Your task to perform on an android device: move a message to another label in the gmail app Image 0: 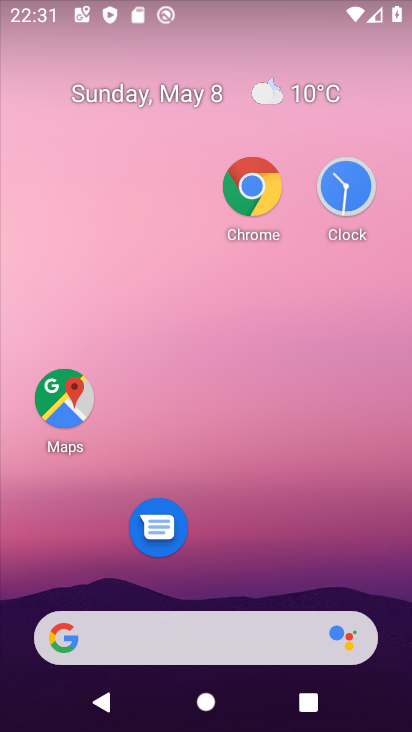
Step 0: drag from (133, 372) to (35, 77)
Your task to perform on an android device: move a message to another label in the gmail app Image 1: 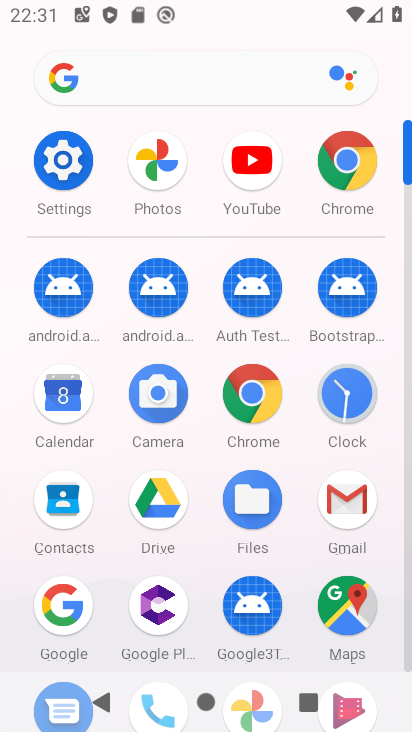
Step 1: drag from (271, 484) to (206, 255)
Your task to perform on an android device: move a message to another label in the gmail app Image 2: 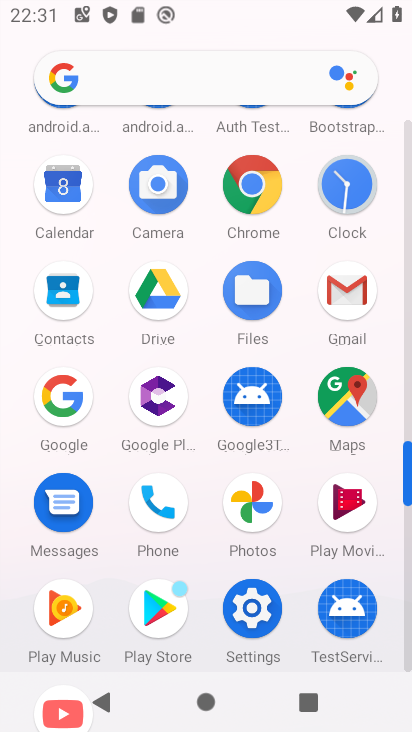
Step 2: click (348, 292)
Your task to perform on an android device: move a message to another label in the gmail app Image 3: 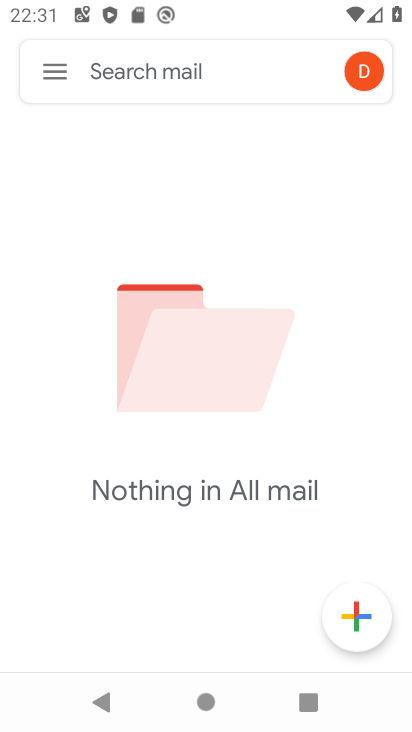
Step 3: task complete